Your task to perform on an android device: delete the emails in spam in the gmail app Image 0: 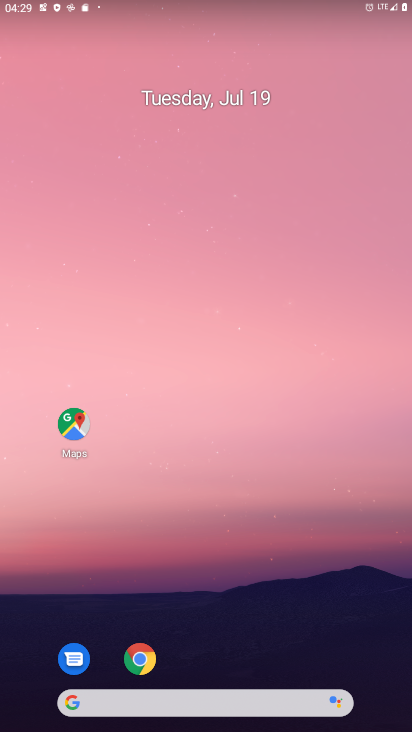
Step 0: drag from (303, 622) to (246, 134)
Your task to perform on an android device: delete the emails in spam in the gmail app Image 1: 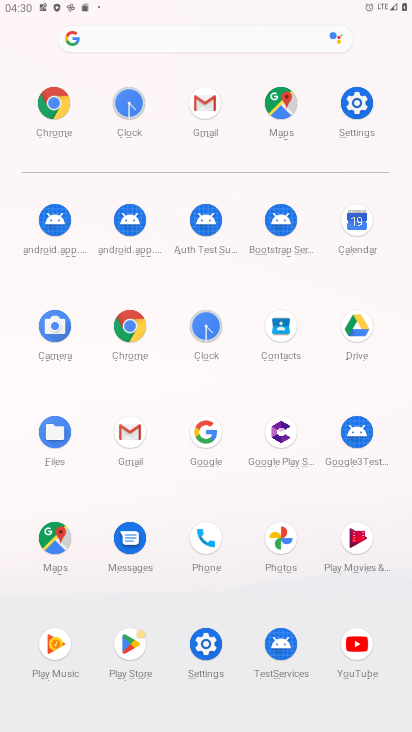
Step 1: click (130, 462)
Your task to perform on an android device: delete the emails in spam in the gmail app Image 2: 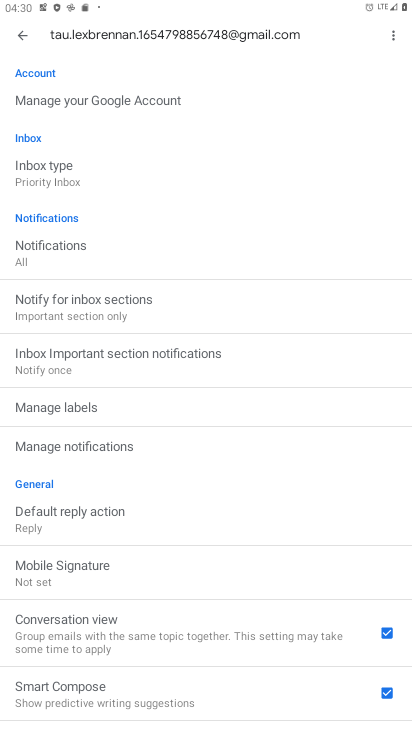
Step 2: click (26, 42)
Your task to perform on an android device: delete the emails in spam in the gmail app Image 3: 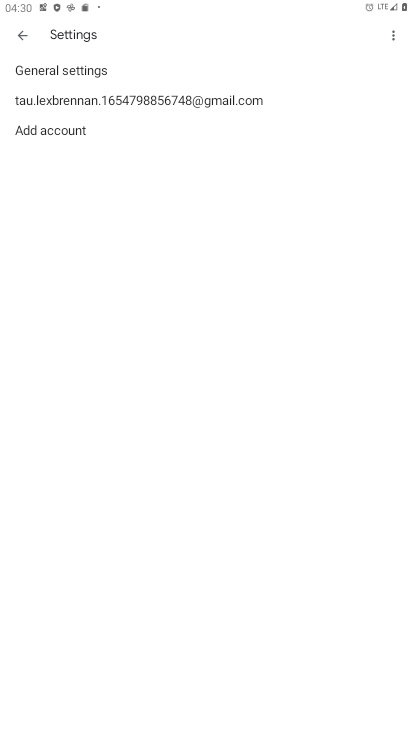
Step 3: click (26, 42)
Your task to perform on an android device: delete the emails in spam in the gmail app Image 4: 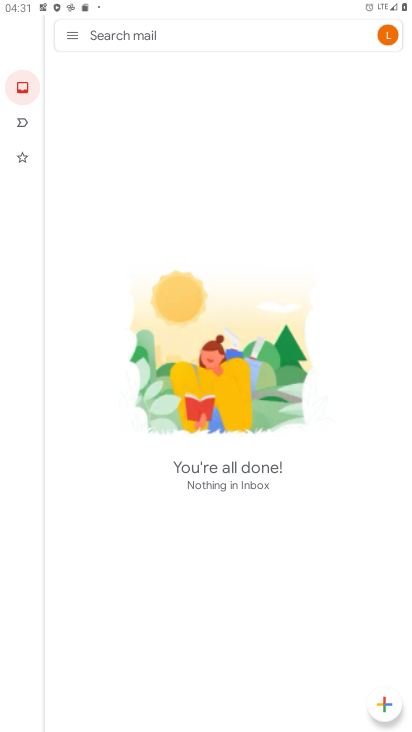
Step 4: task complete